Your task to perform on an android device: set default search engine in the chrome app Image 0: 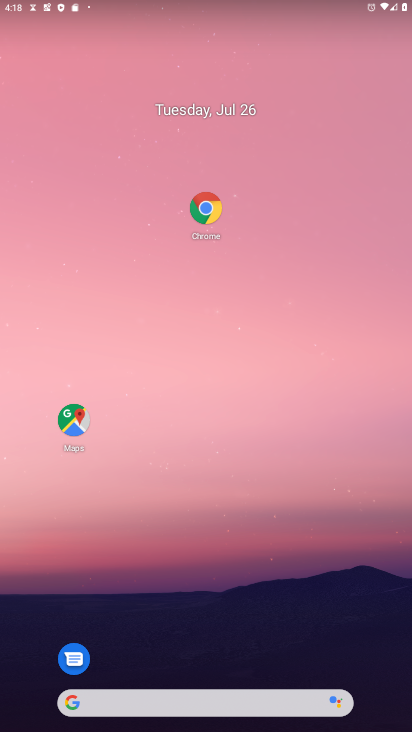
Step 0: click (205, 199)
Your task to perform on an android device: set default search engine in the chrome app Image 1: 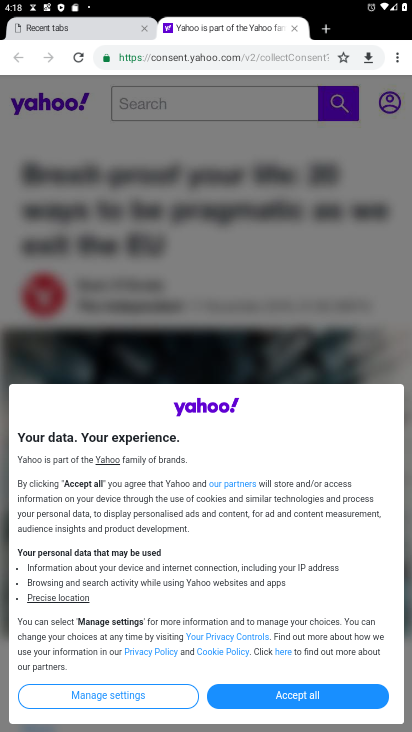
Step 1: click (396, 59)
Your task to perform on an android device: set default search engine in the chrome app Image 2: 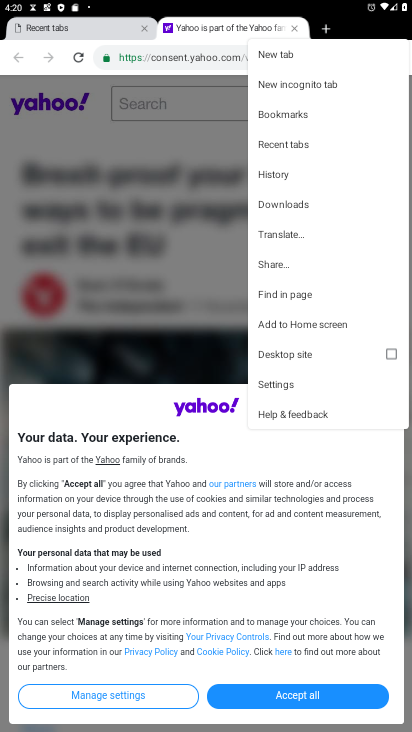
Step 2: click (275, 385)
Your task to perform on an android device: set default search engine in the chrome app Image 3: 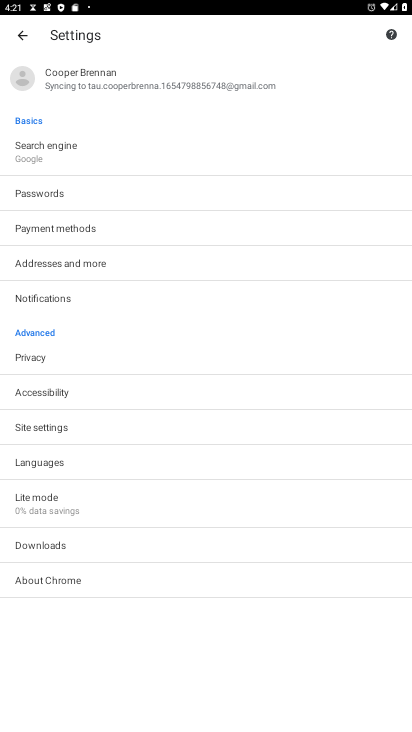
Step 3: click (47, 142)
Your task to perform on an android device: set default search engine in the chrome app Image 4: 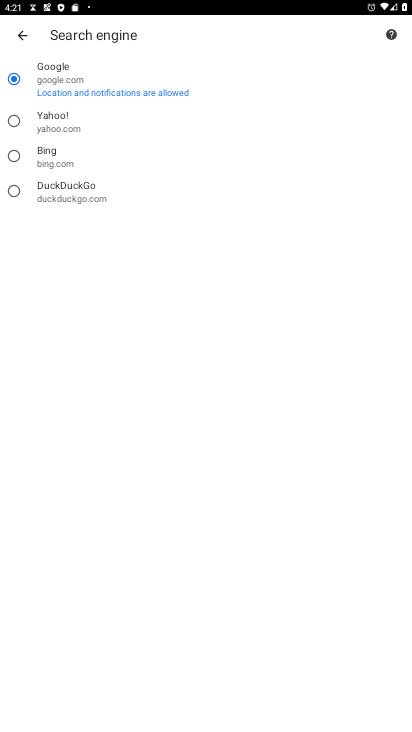
Step 4: click (47, 142)
Your task to perform on an android device: set default search engine in the chrome app Image 5: 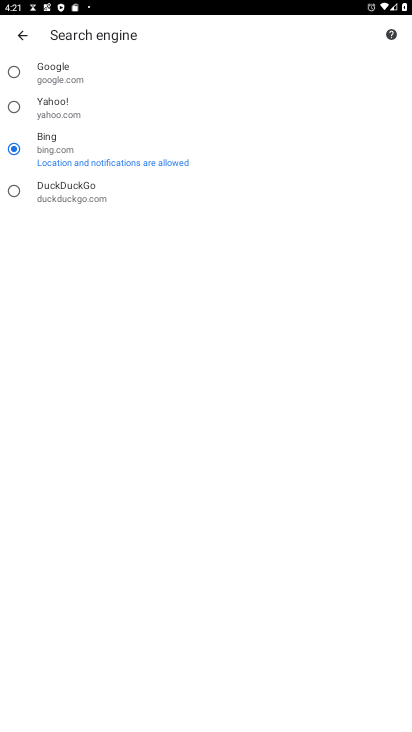
Step 5: task complete